Your task to perform on an android device: open the mobile data screen to see how much data has been used Image 0: 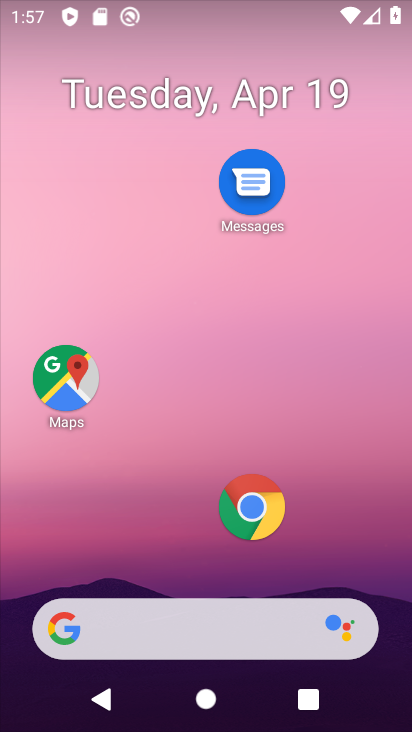
Step 0: drag from (124, 590) to (187, 7)
Your task to perform on an android device: open the mobile data screen to see how much data has been used Image 1: 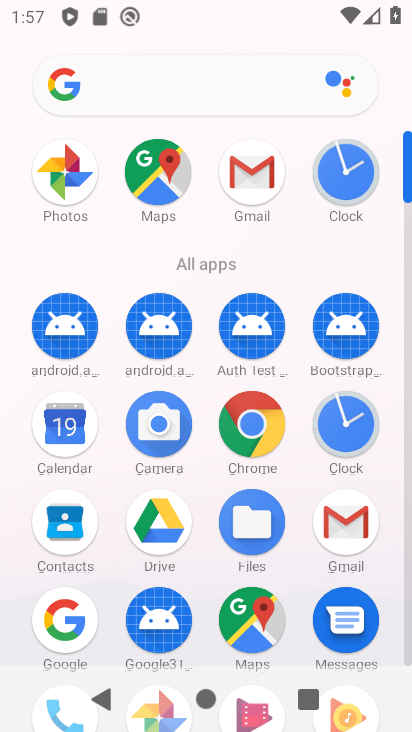
Step 1: drag from (168, 616) to (261, 277)
Your task to perform on an android device: open the mobile data screen to see how much data has been used Image 2: 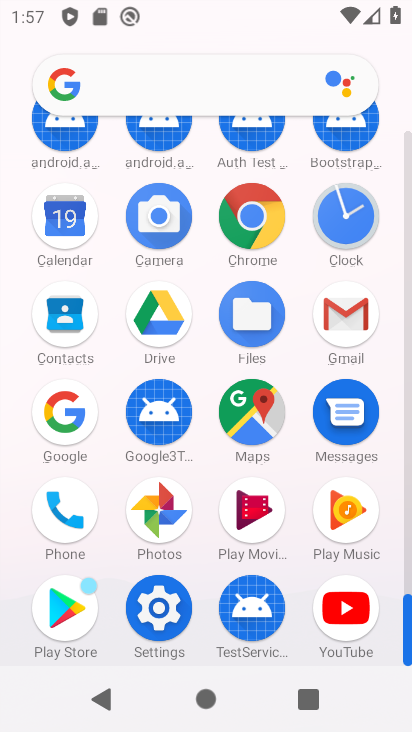
Step 2: click (159, 589)
Your task to perform on an android device: open the mobile data screen to see how much data has been used Image 3: 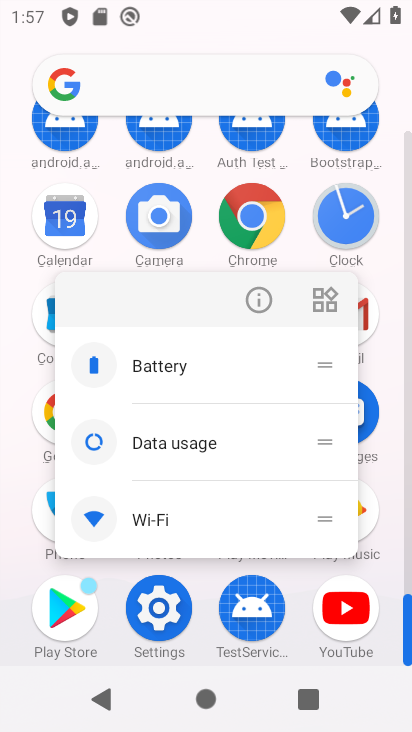
Step 3: click (150, 603)
Your task to perform on an android device: open the mobile data screen to see how much data has been used Image 4: 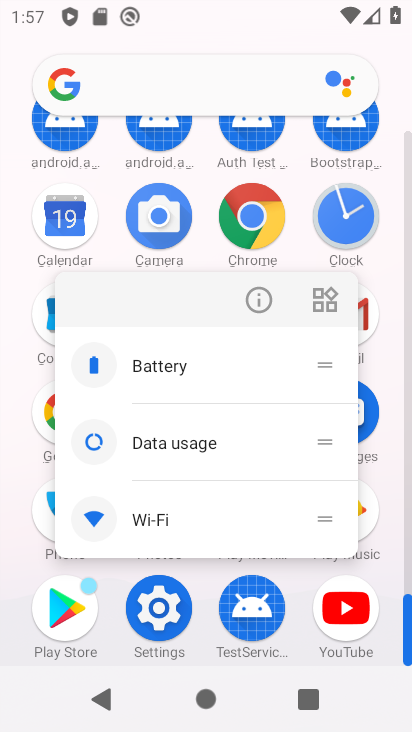
Step 4: click (150, 601)
Your task to perform on an android device: open the mobile data screen to see how much data has been used Image 5: 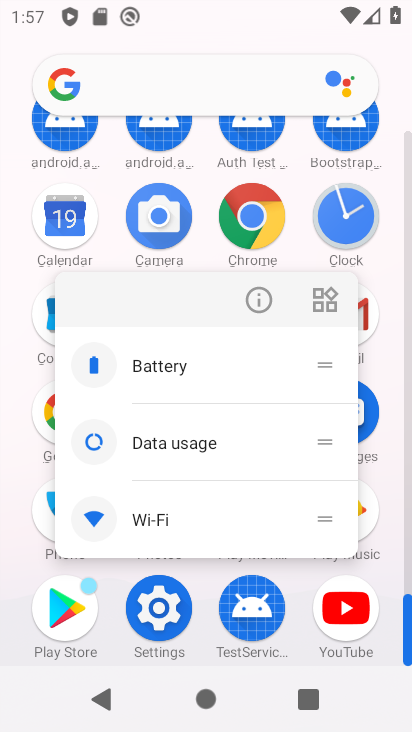
Step 5: click (160, 609)
Your task to perform on an android device: open the mobile data screen to see how much data has been used Image 6: 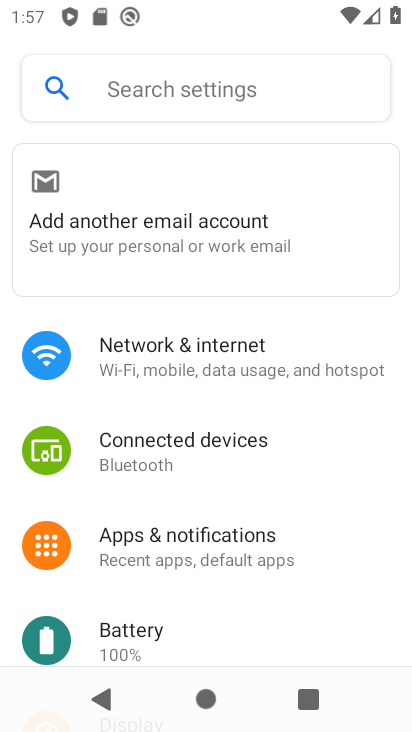
Step 6: drag from (197, 648) to (256, 327)
Your task to perform on an android device: open the mobile data screen to see how much data has been used Image 7: 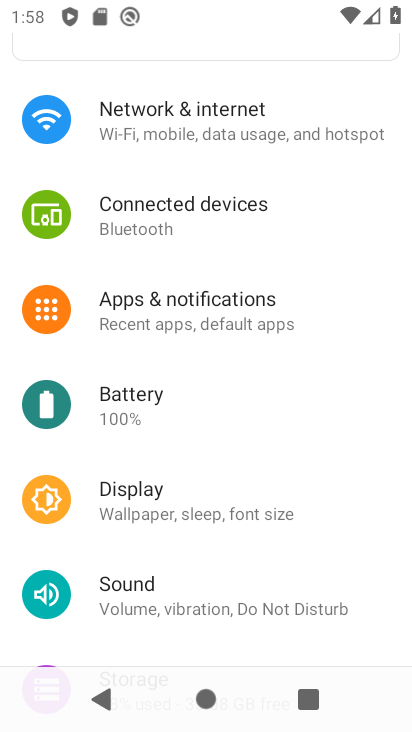
Step 7: click (227, 119)
Your task to perform on an android device: open the mobile data screen to see how much data has been used Image 8: 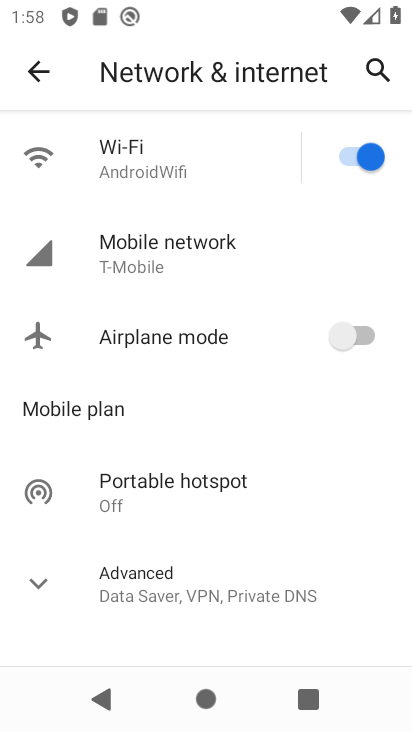
Step 8: click (224, 271)
Your task to perform on an android device: open the mobile data screen to see how much data has been used Image 9: 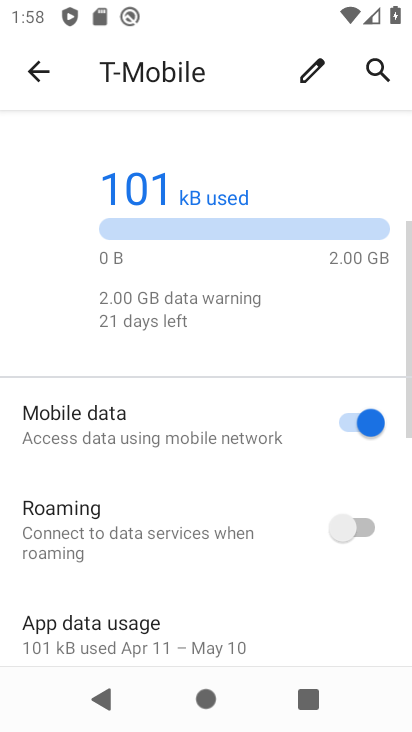
Step 9: drag from (210, 541) to (277, 295)
Your task to perform on an android device: open the mobile data screen to see how much data has been used Image 10: 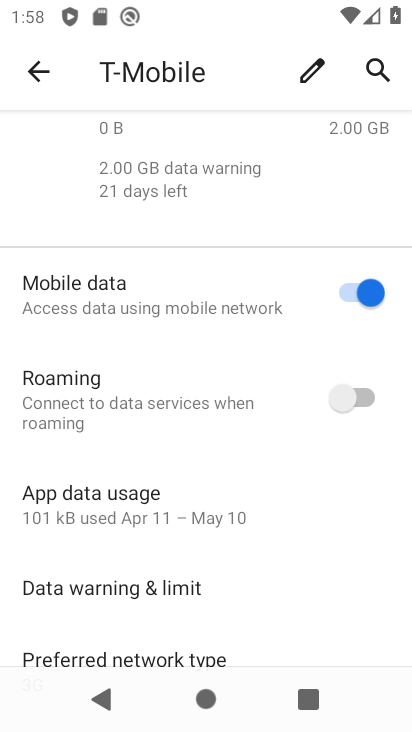
Step 10: click (187, 517)
Your task to perform on an android device: open the mobile data screen to see how much data has been used Image 11: 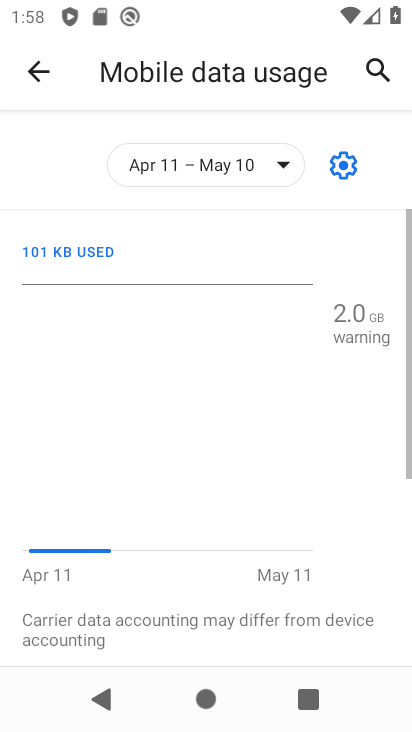
Step 11: task complete